Your task to perform on an android device: turn off airplane mode Image 0: 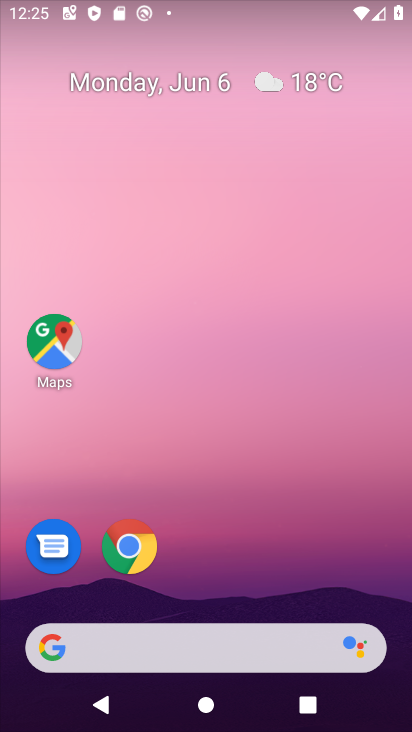
Step 0: drag from (300, 4) to (328, 379)
Your task to perform on an android device: turn off airplane mode Image 1: 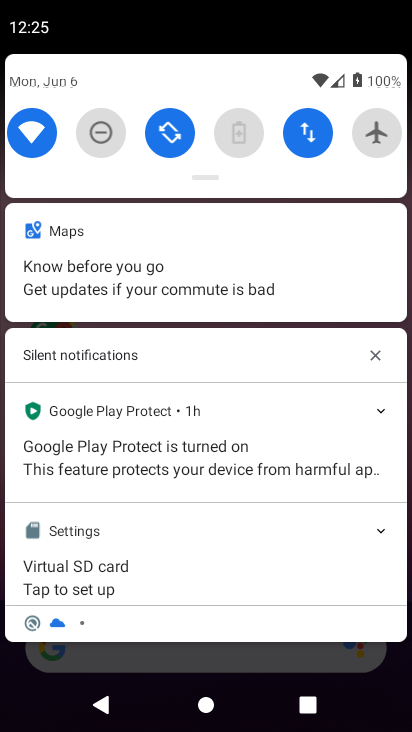
Step 1: task complete